Your task to perform on an android device: turn vacation reply on in the gmail app Image 0: 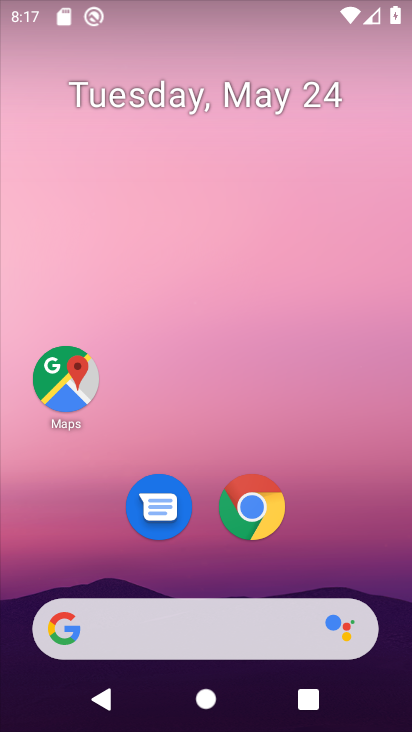
Step 0: drag from (202, 568) to (182, 188)
Your task to perform on an android device: turn vacation reply on in the gmail app Image 1: 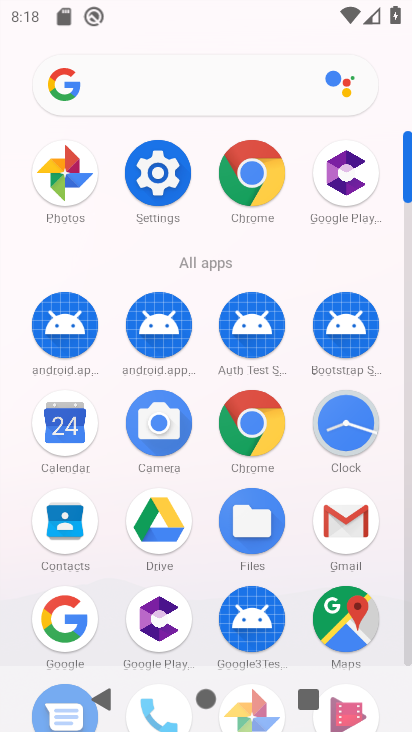
Step 1: click (336, 506)
Your task to perform on an android device: turn vacation reply on in the gmail app Image 2: 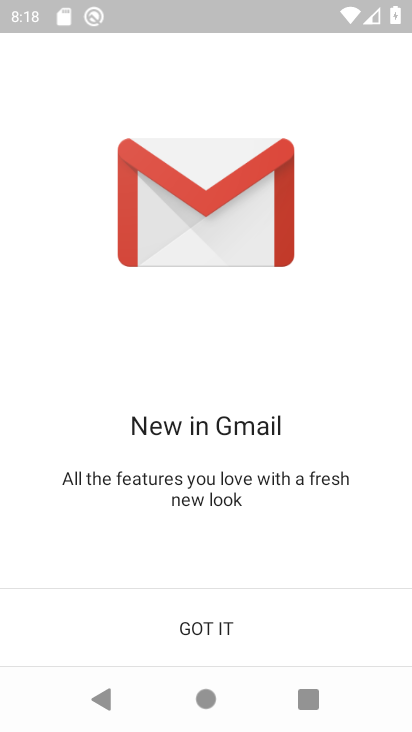
Step 2: click (231, 641)
Your task to perform on an android device: turn vacation reply on in the gmail app Image 3: 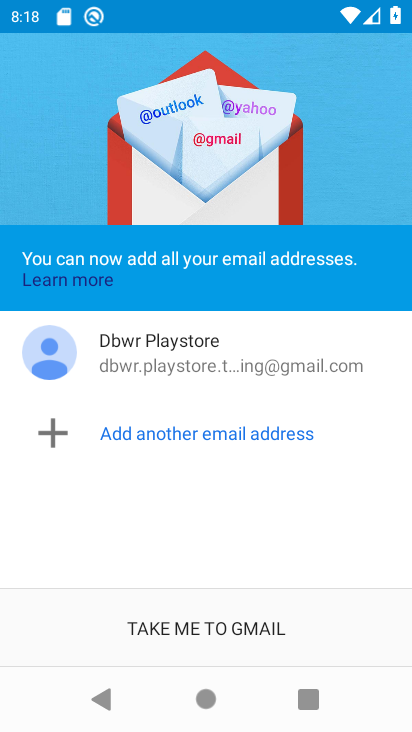
Step 3: click (153, 642)
Your task to perform on an android device: turn vacation reply on in the gmail app Image 4: 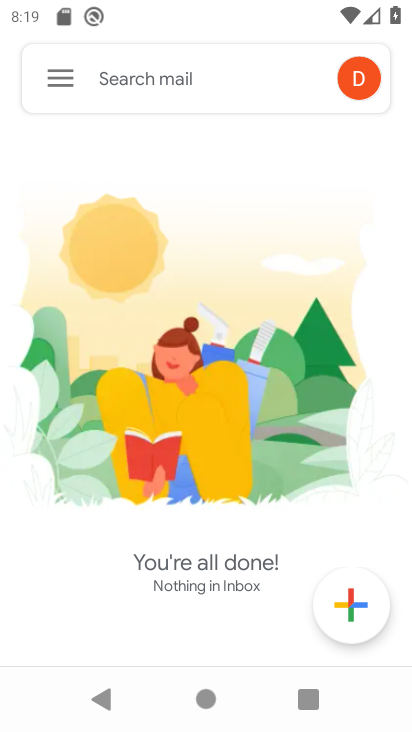
Step 4: click (49, 89)
Your task to perform on an android device: turn vacation reply on in the gmail app Image 5: 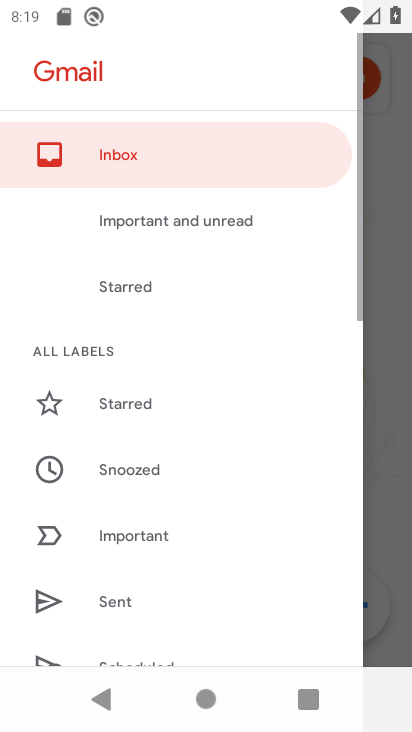
Step 5: drag from (216, 574) to (262, 15)
Your task to perform on an android device: turn vacation reply on in the gmail app Image 6: 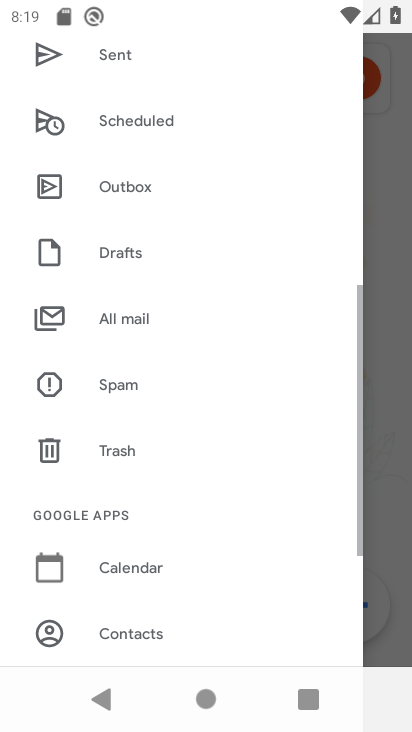
Step 6: drag from (223, 571) to (193, 166)
Your task to perform on an android device: turn vacation reply on in the gmail app Image 7: 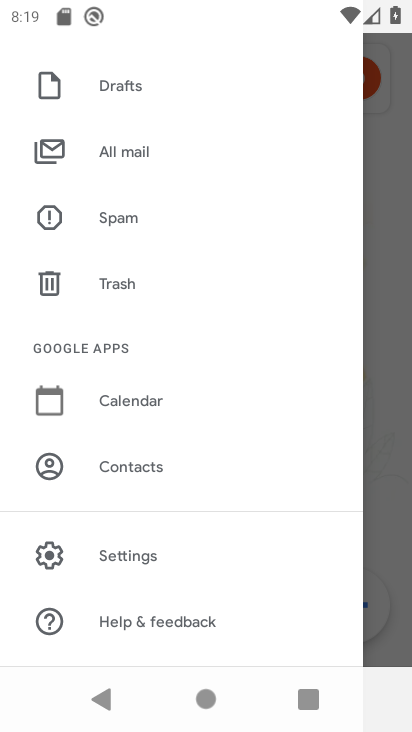
Step 7: click (162, 551)
Your task to perform on an android device: turn vacation reply on in the gmail app Image 8: 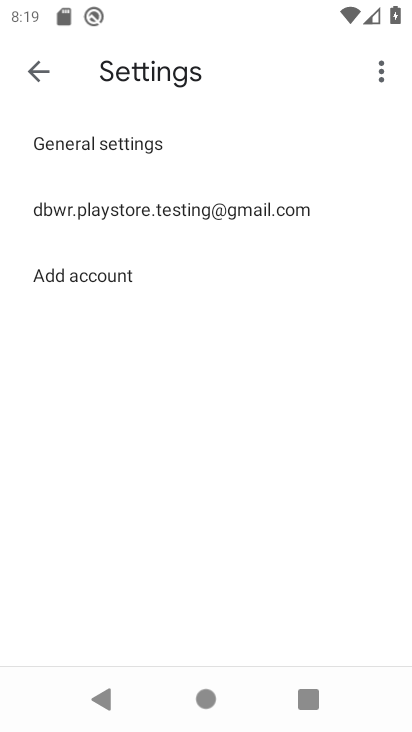
Step 8: click (181, 203)
Your task to perform on an android device: turn vacation reply on in the gmail app Image 9: 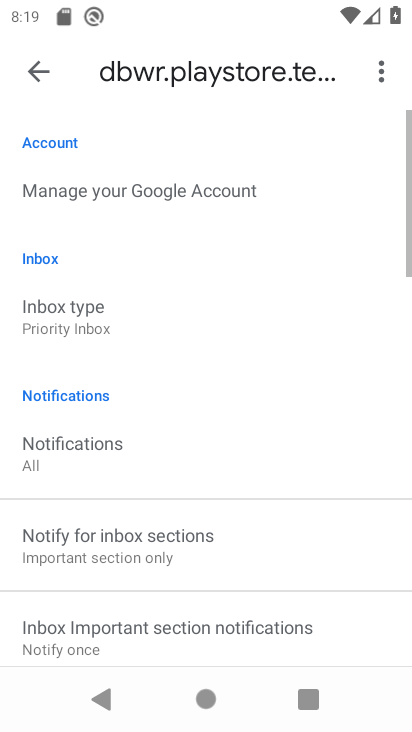
Step 9: drag from (184, 514) to (190, 228)
Your task to perform on an android device: turn vacation reply on in the gmail app Image 10: 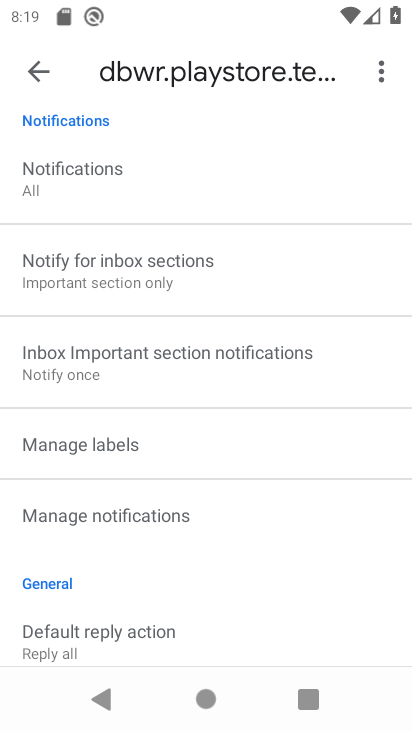
Step 10: drag from (211, 600) to (218, 173)
Your task to perform on an android device: turn vacation reply on in the gmail app Image 11: 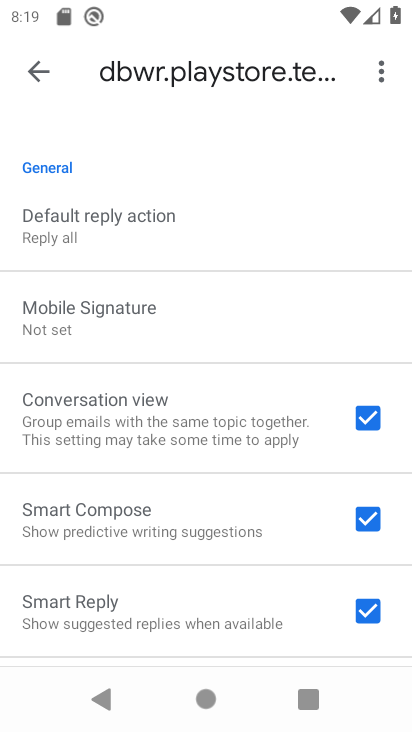
Step 11: drag from (192, 556) to (246, 183)
Your task to perform on an android device: turn vacation reply on in the gmail app Image 12: 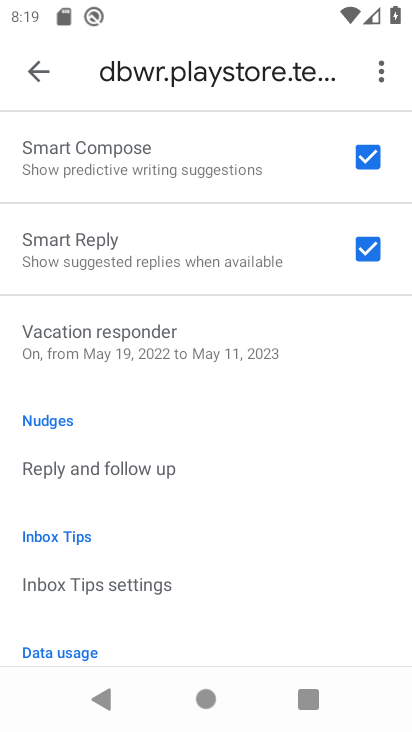
Step 12: click (170, 341)
Your task to perform on an android device: turn vacation reply on in the gmail app Image 13: 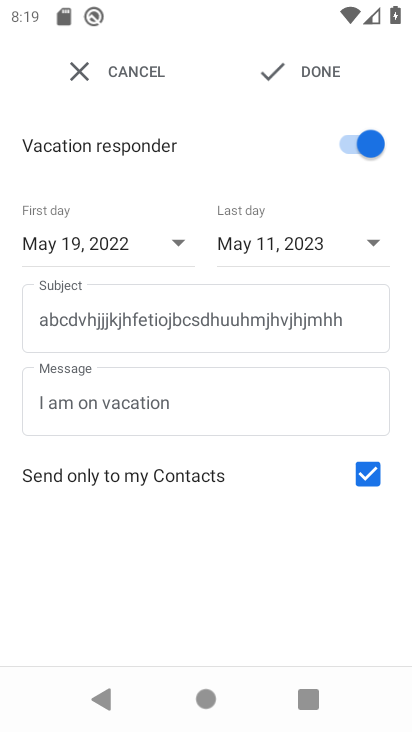
Step 13: click (302, 65)
Your task to perform on an android device: turn vacation reply on in the gmail app Image 14: 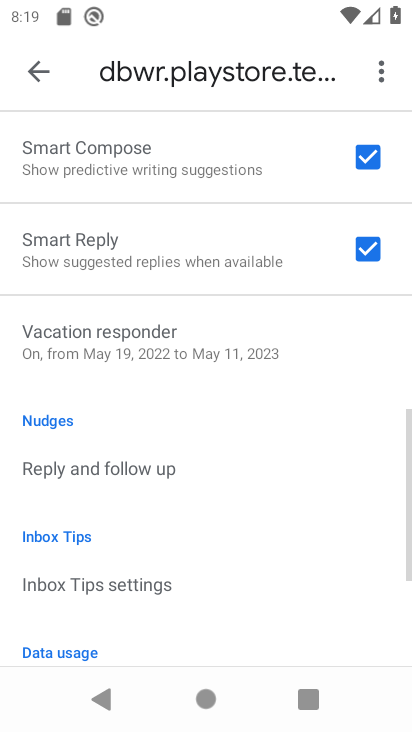
Step 14: task complete